Your task to perform on an android device: Go to Google Image 0: 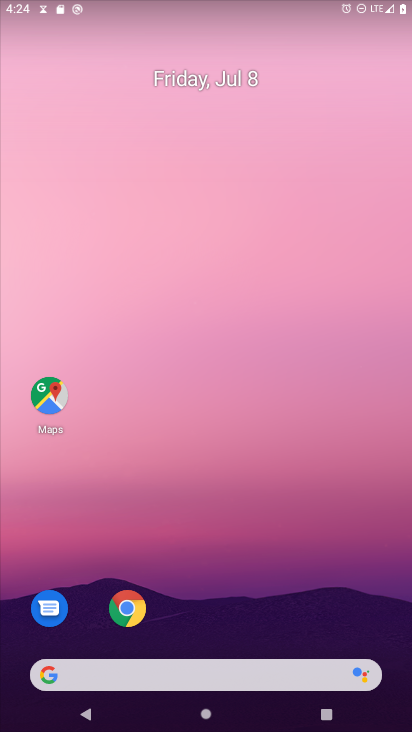
Step 0: drag from (291, 609) to (179, 434)
Your task to perform on an android device: Go to Google Image 1: 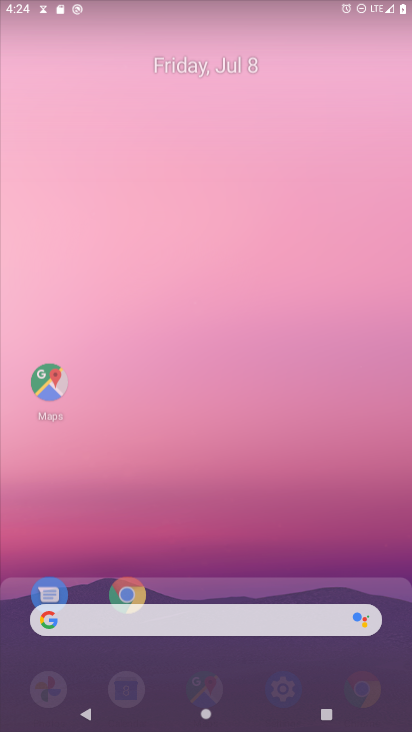
Step 1: click (136, 370)
Your task to perform on an android device: Go to Google Image 2: 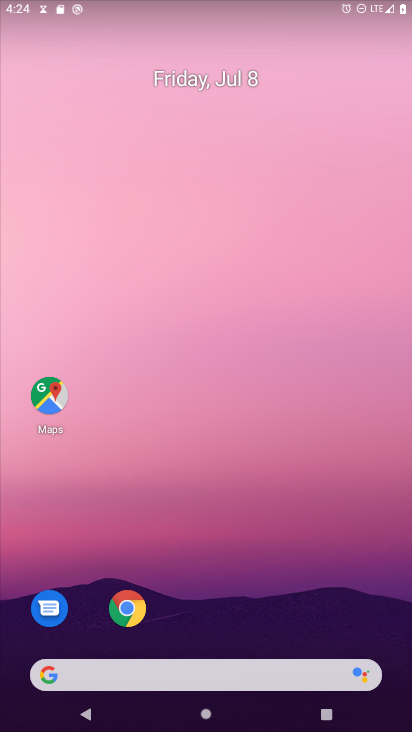
Step 2: drag from (224, 639) to (239, 23)
Your task to perform on an android device: Go to Google Image 3: 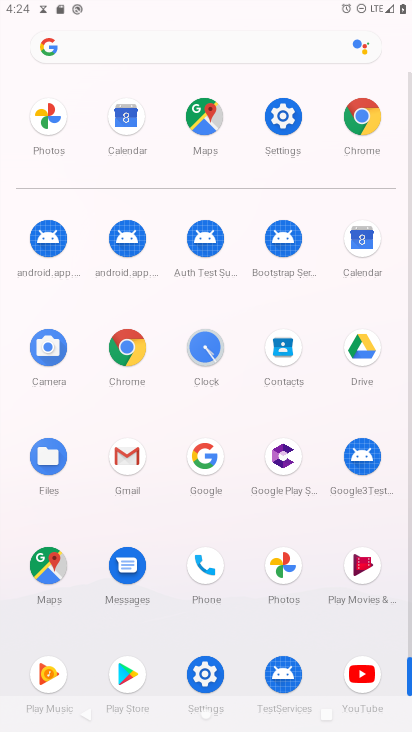
Step 3: click (132, 352)
Your task to perform on an android device: Go to Google Image 4: 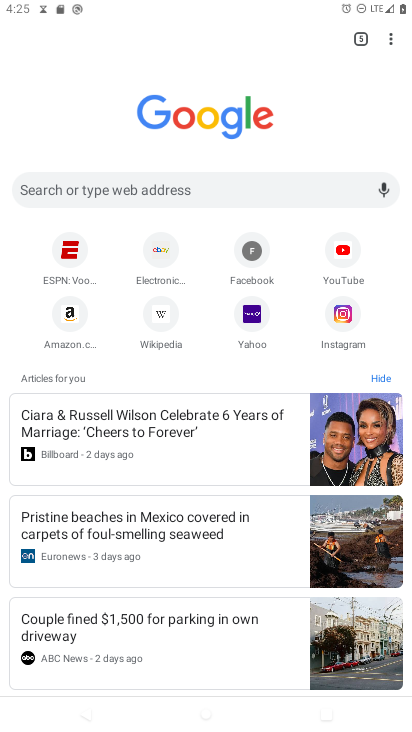
Step 4: task complete